Your task to perform on an android device: toggle sleep mode Image 0: 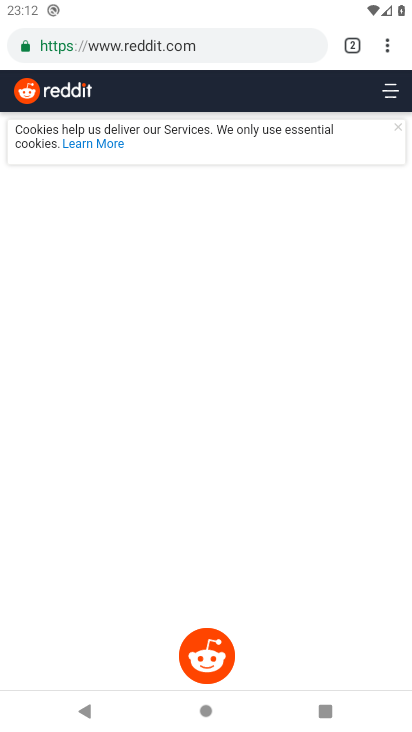
Step 0: press home button
Your task to perform on an android device: toggle sleep mode Image 1: 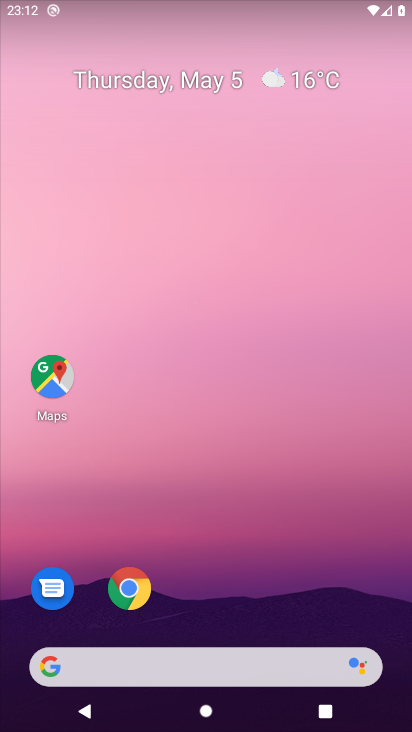
Step 1: drag from (221, 604) to (199, 108)
Your task to perform on an android device: toggle sleep mode Image 2: 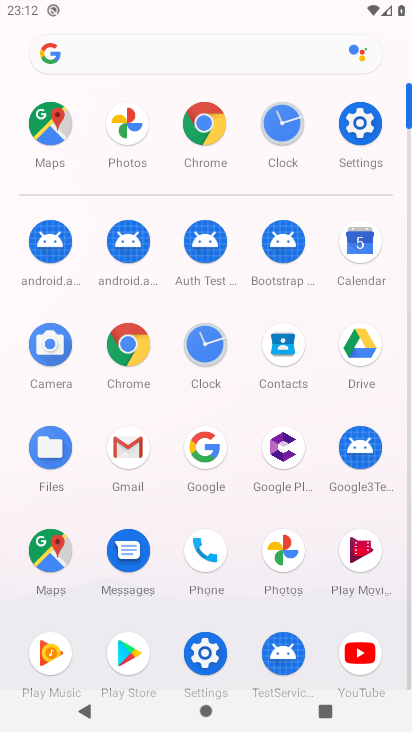
Step 2: click (368, 124)
Your task to perform on an android device: toggle sleep mode Image 3: 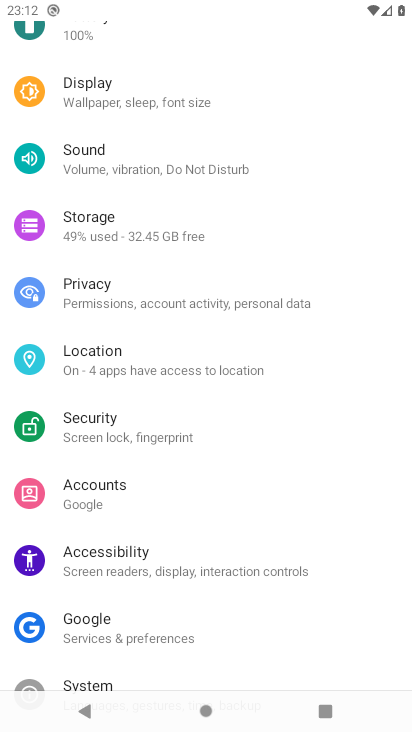
Step 3: click (173, 102)
Your task to perform on an android device: toggle sleep mode Image 4: 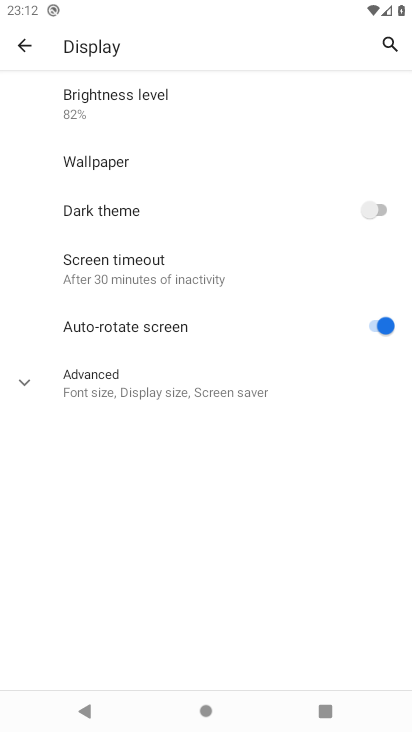
Step 4: click (234, 394)
Your task to perform on an android device: toggle sleep mode Image 5: 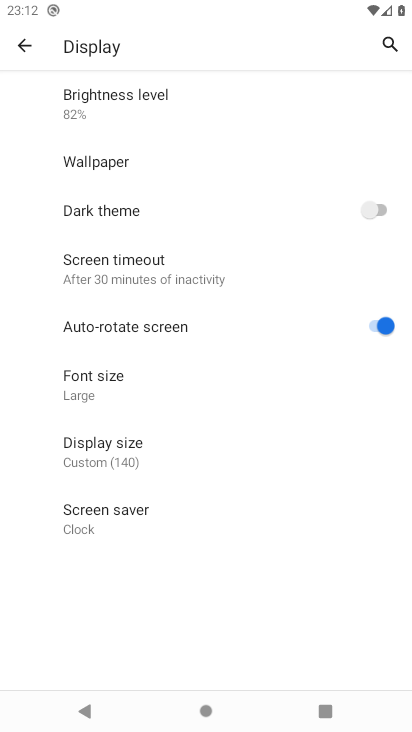
Step 5: task complete